Your task to perform on an android device: turn off sleep mode Image 0: 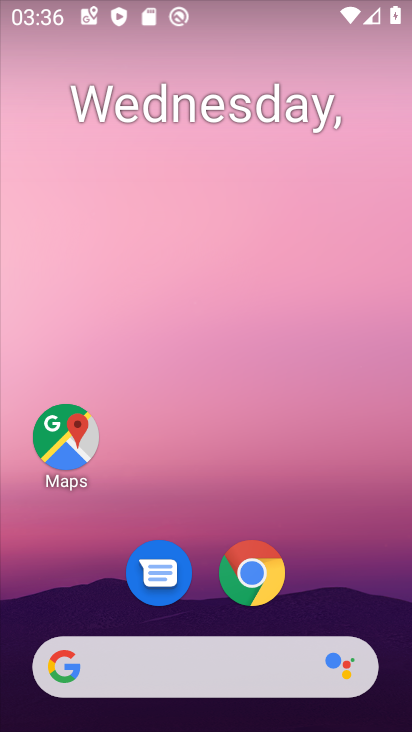
Step 0: drag from (321, 598) to (265, 84)
Your task to perform on an android device: turn off sleep mode Image 1: 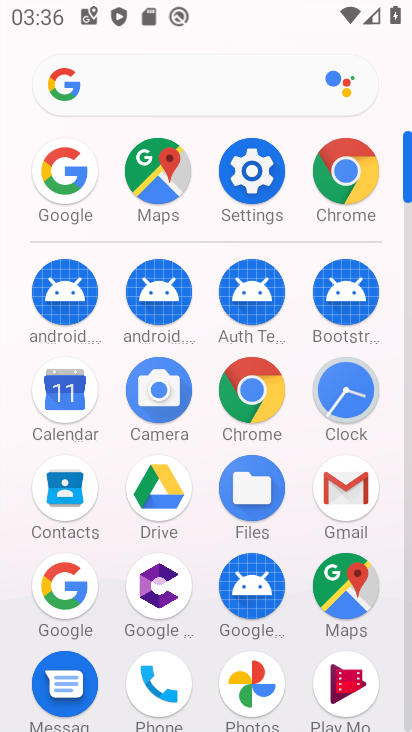
Step 1: click (249, 172)
Your task to perform on an android device: turn off sleep mode Image 2: 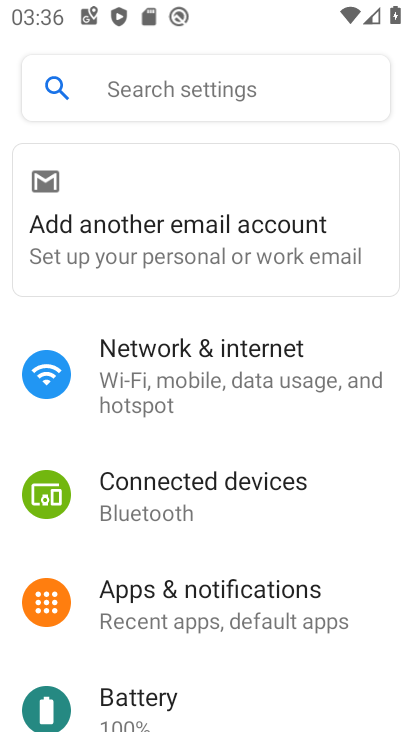
Step 2: drag from (188, 545) to (253, 415)
Your task to perform on an android device: turn off sleep mode Image 3: 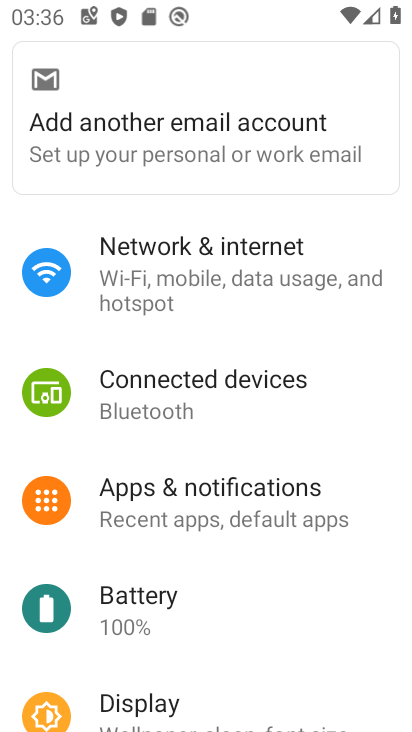
Step 3: drag from (213, 579) to (262, 402)
Your task to perform on an android device: turn off sleep mode Image 4: 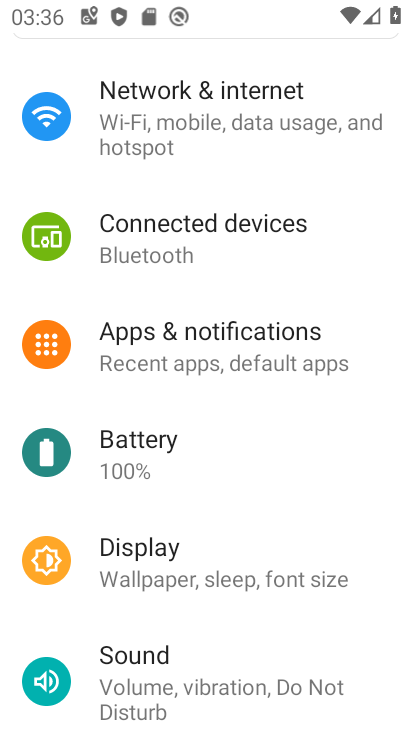
Step 4: click (215, 570)
Your task to perform on an android device: turn off sleep mode Image 5: 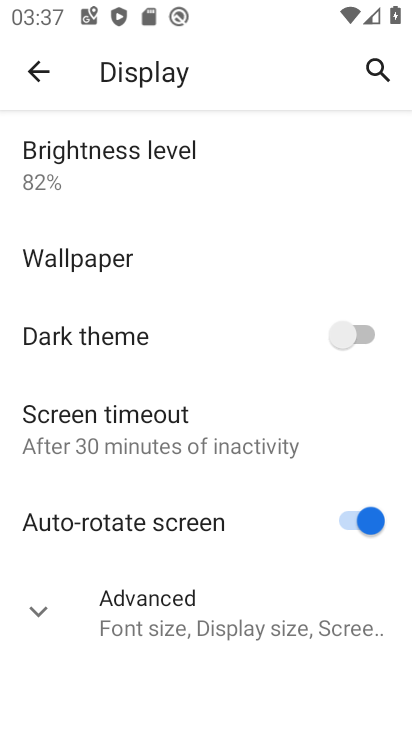
Step 5: task complete